Your task to perform on an android device: turn notification dots on Image 0: 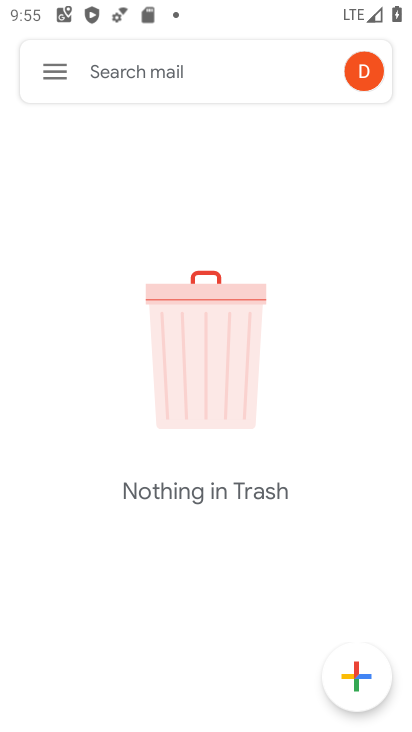
Step 0: press home button
Your task to perform on an android device: turn notification dots on Image 1: 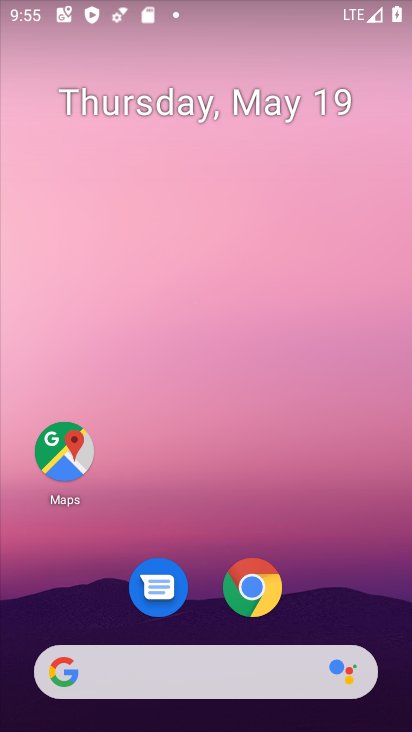
Step 1: drag from (196, 630) to (159, 263)
Your task to perform on an android device: turn notification dots on Image 2: 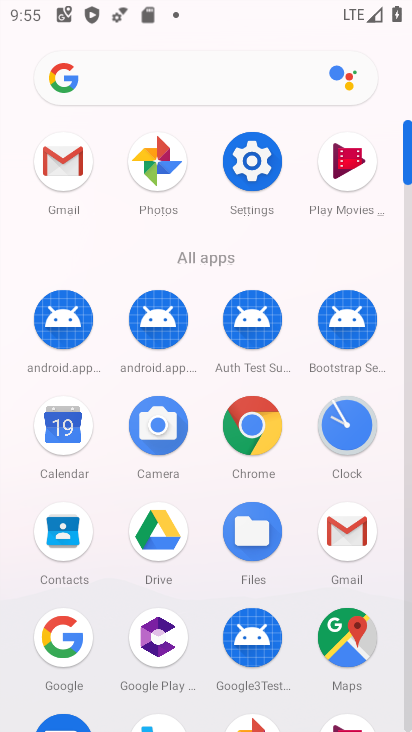
Step 2: click (261, 170)
Your task to perform on an android device: turn notification dots on Image 3: 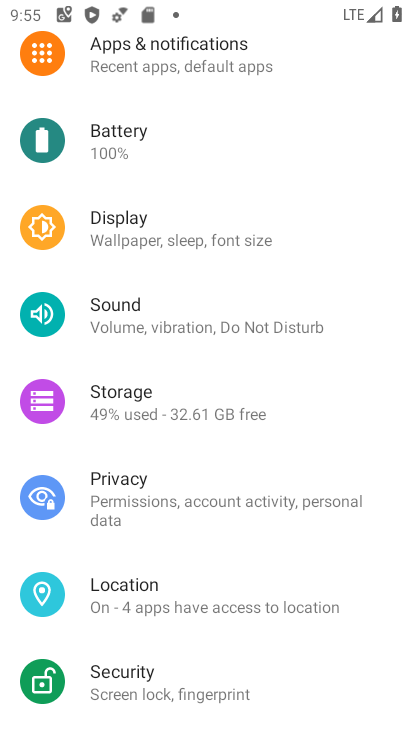
Step 3: click (219, 50)
Your task to perform on an android device: turn notification dots on Image 4: 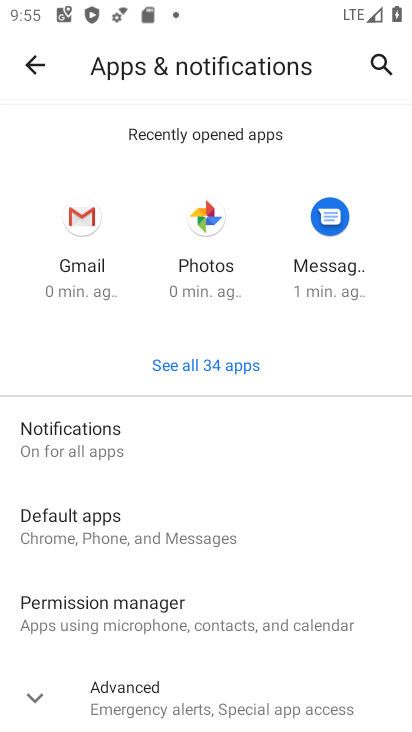
Step 4: click (140, 696)
Your task to perform on an android device: turn notification dots on Image 5: 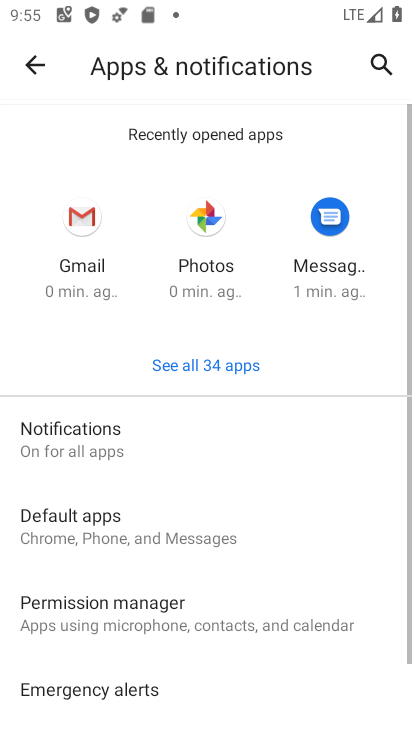
Step 5: drag from (140, 696) to (165, 248)
Your task to perform on an android device: turn notification dots on Image 6: 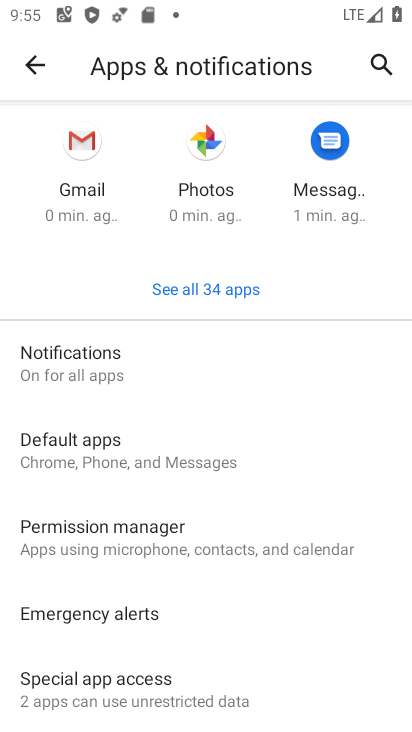
Step 6: drag from (111, 641) to (149, 222)
Your task to perform on an android device: turn notification dots on Image 7: 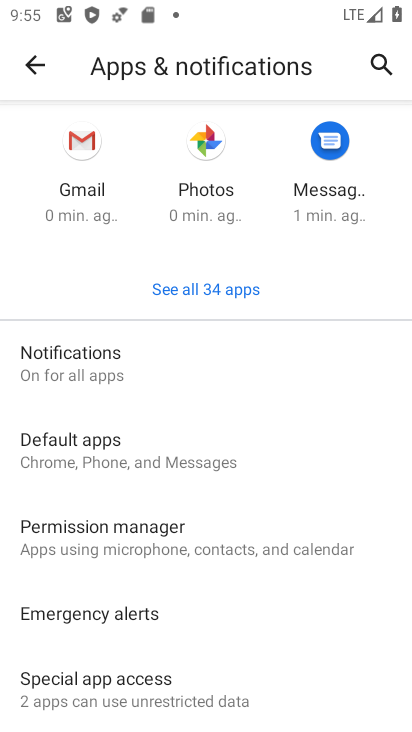
Step 7: click (127, 380)
Your task to perform on an android device: turn notification dots on Image 8: 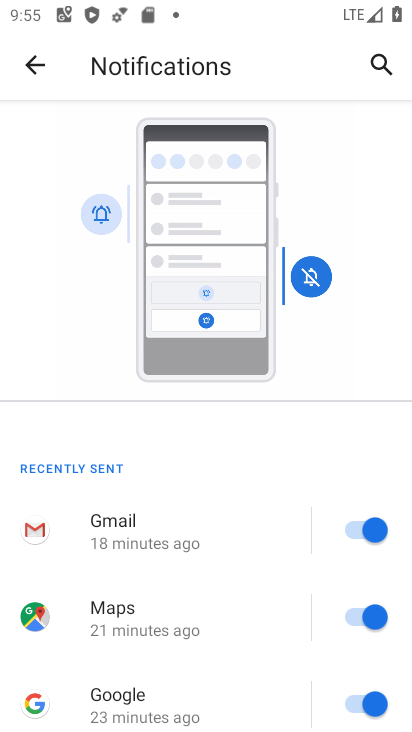
Step 8: drag from (166, 687) to (105, 320)
Your task to perform on an android device: turn notification dots on Image 9: 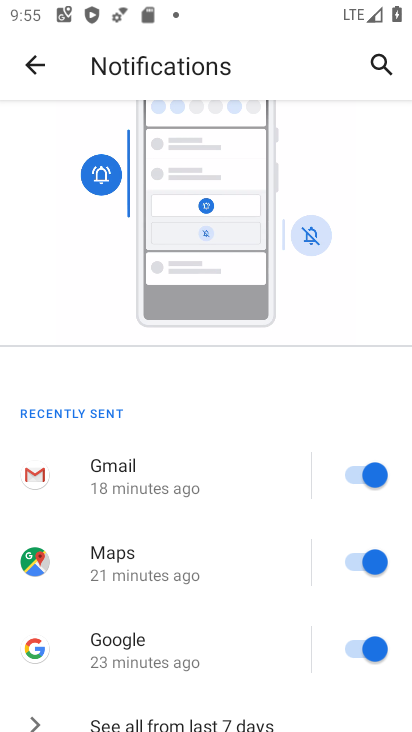
Step 9: drag from (66, 662) to (112, 141)
Your task to perform on an android device: turn notification dots on Image 10: 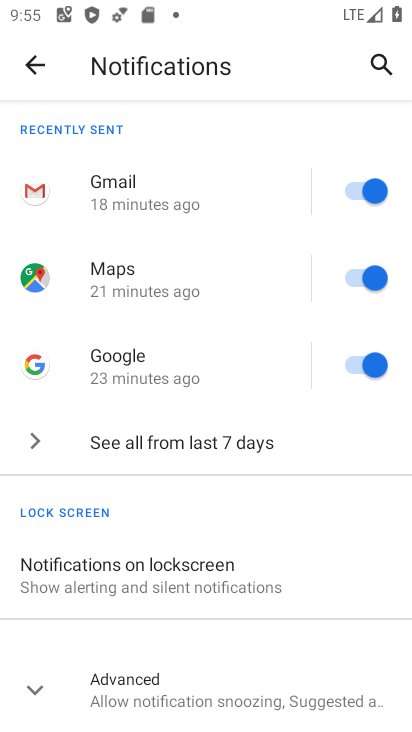
Step 10: click (162, 695)
Your task to perform on an android device: turn notification dots on Image 11: 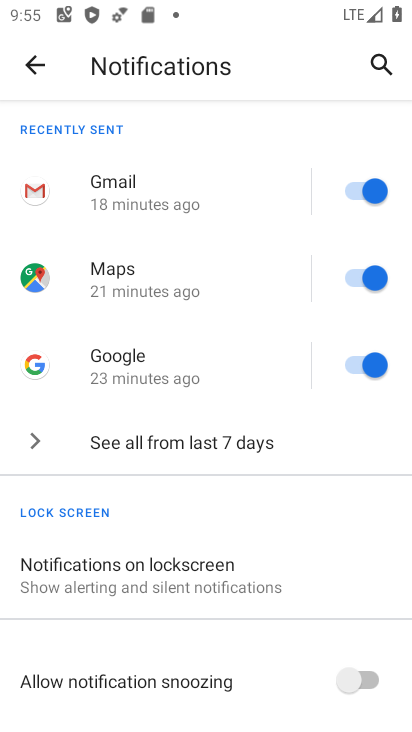
Step 11: task complete